Your task to perform on an android device: check android version Image 0: 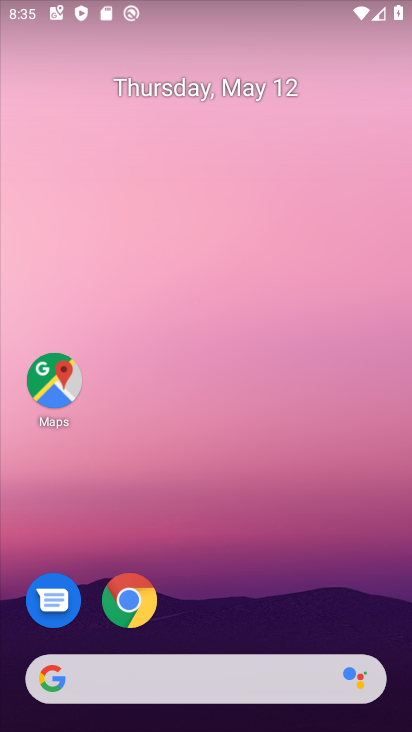
Step 0: drag from (234, 601) to (235, 174)
Your task to perform on an android device: check android version Image 1: 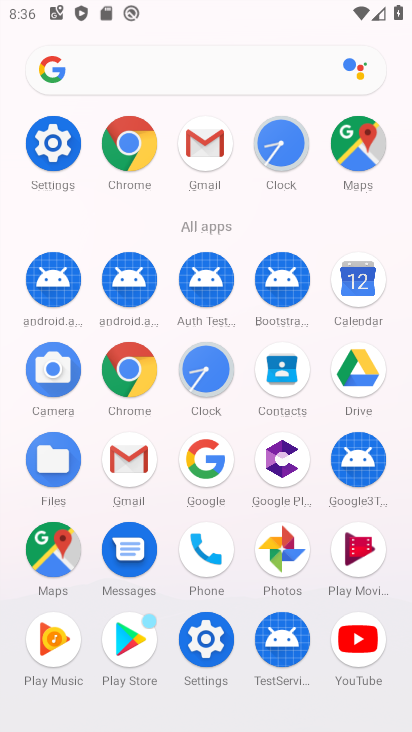
Step 1: click (56, 150)
Your task to perform on an android device: check android version Image 2: 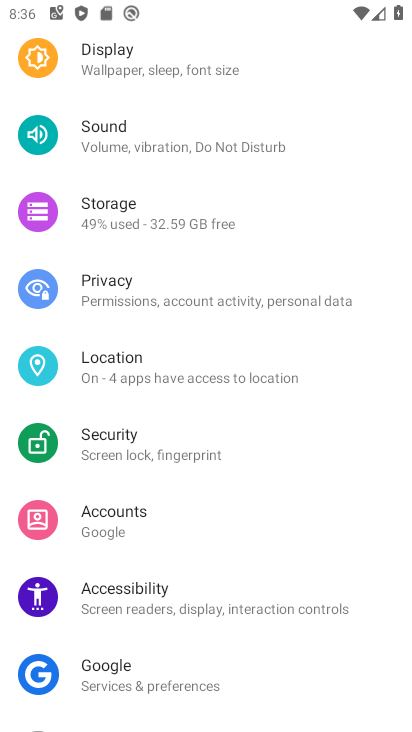
Step 2: drag from (182, 663) to (213, 376)
Your task to perform on an android device: check android version Image 3: 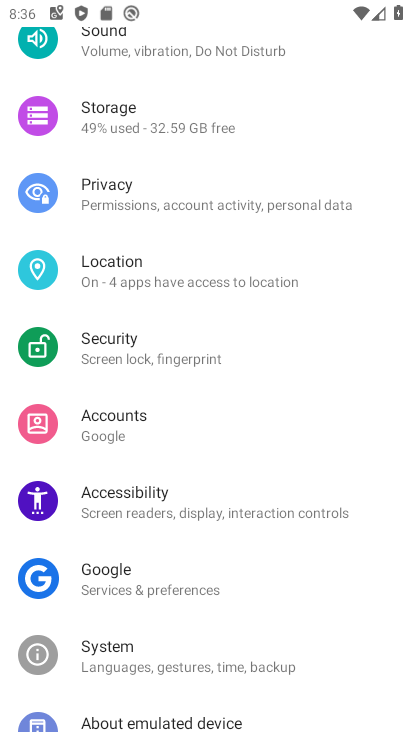
Step 3: click (116, 717)
Your task to perform on an android device: check android version Image 4: 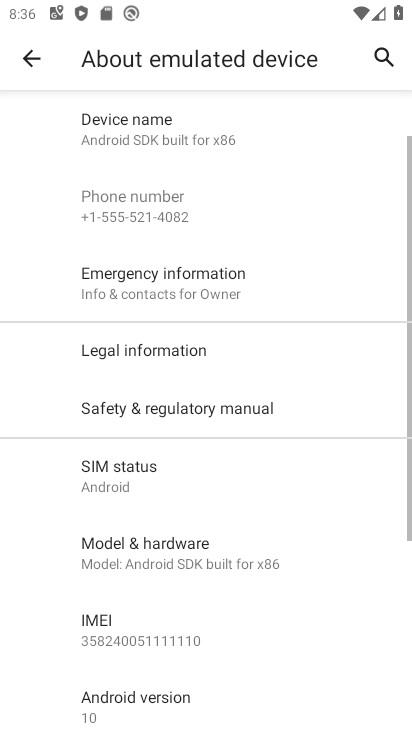
Step 4: task complete